Your task to perform on an android device: Search for Italian restaurants on Maps Image 0: 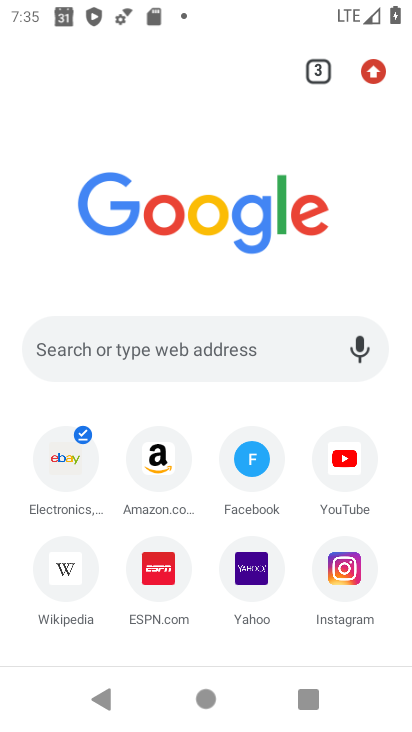
Step 0: press home button
Your task to perform on an android device: Search for Italian restaurants on Maps Image 1: 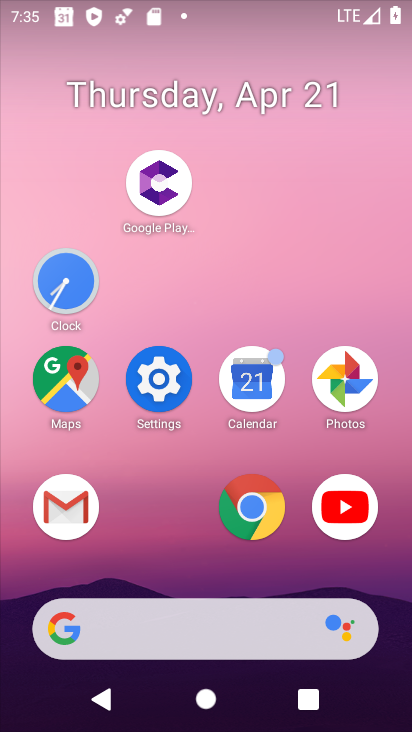
Step 1: click (50, 367)
Your task to perform on an android device: Search for Italian restaurants on Maps Image 2: 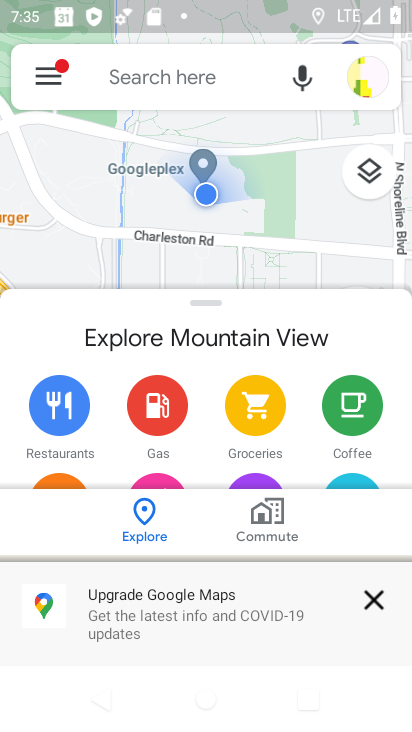
Step 2: click (174, 84)
Your task to perform on an android device: Search for Italian restaurants on Maps Image 3: 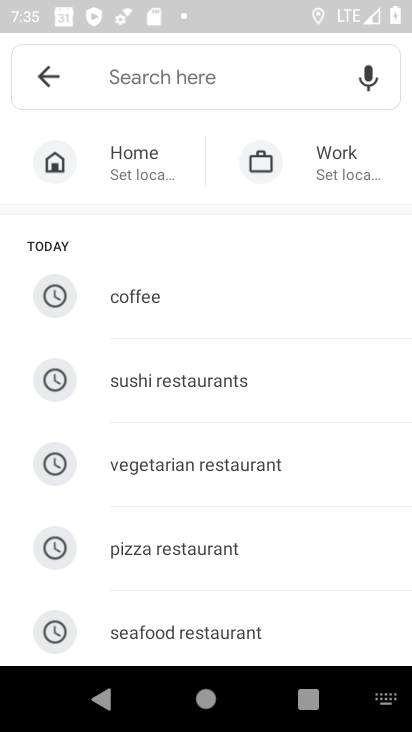
Step 3: type "Italian restaurant"
Your task to perform on an android device: Search for Italian restaurants on Maps Image 4: 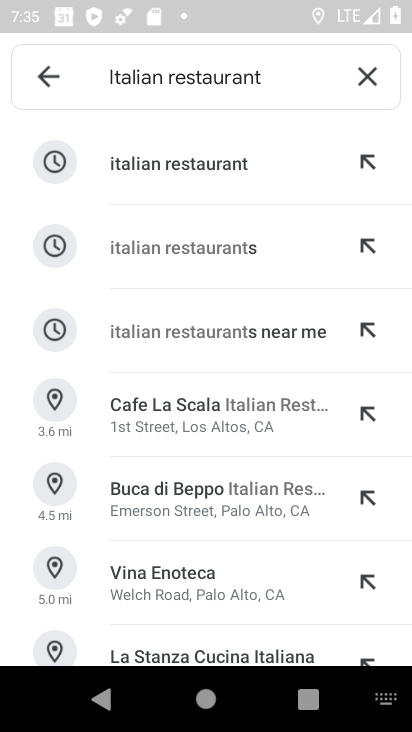
Step 4: click (198, 162)
Your task to perform on an android device: Search for Italian restaurants on Maps Image 5: 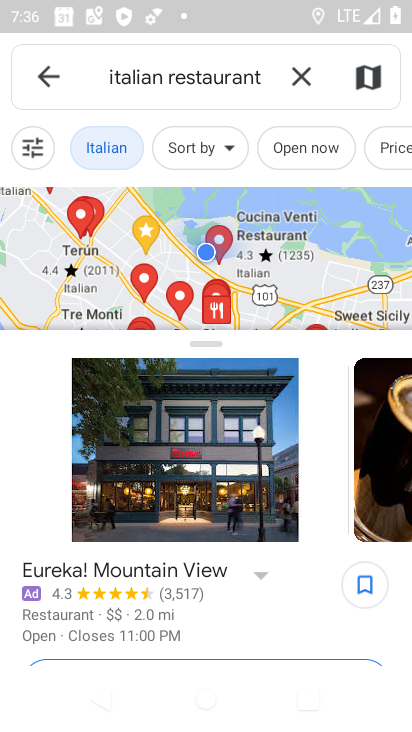
Step 5: task complete